Your task to perform on an android device: Go to Yahoo.com Image 0: 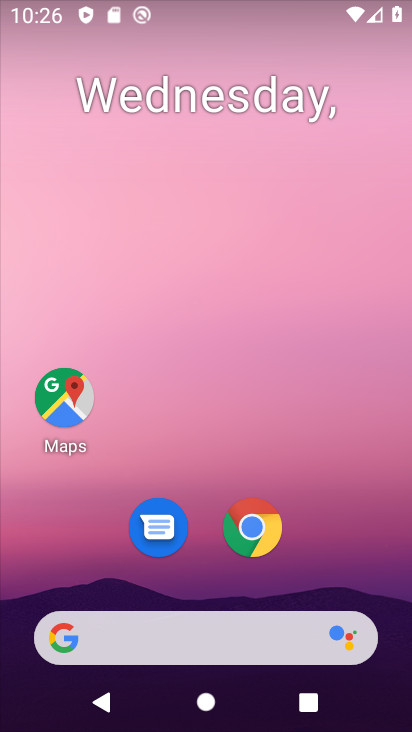
Step 0: click (258, 529)
Your task to perform on an android device: Go to Yahoo.com Image 1: 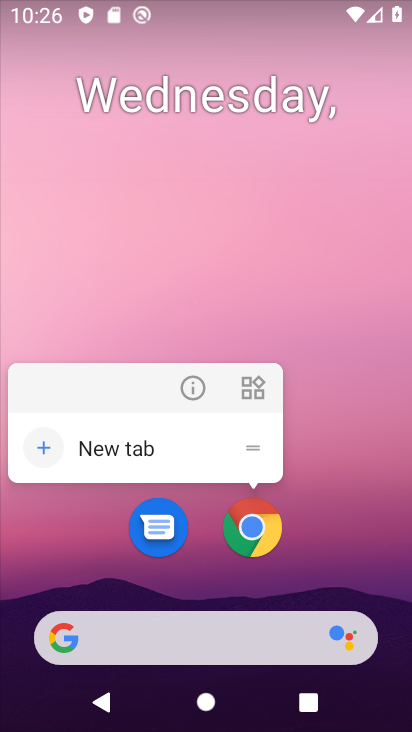
Step 1: click (258, 529)
Your task to perform on an android device: Go to Yahoo.com Image 2: 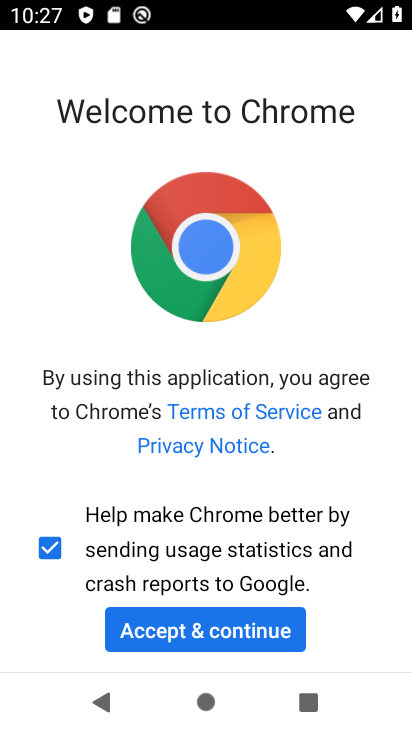
Step 2: click (174, 636)
Your task to perform on an android device: Go to Yahoo.com Image 3: 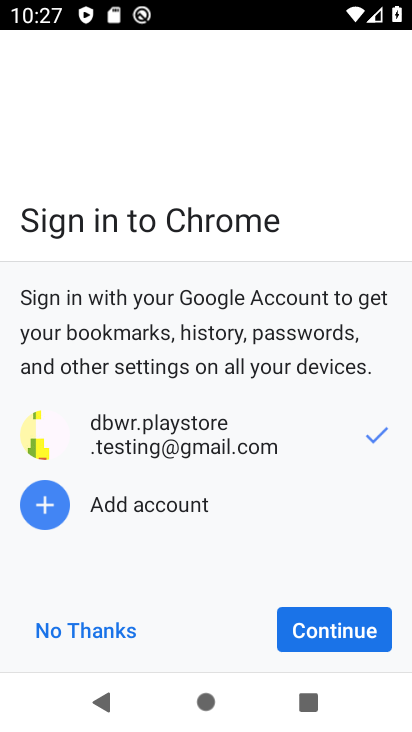
Step 3: click (109, 641)
Your task to perform on an android device: Go to Yahoo.com Image 4: 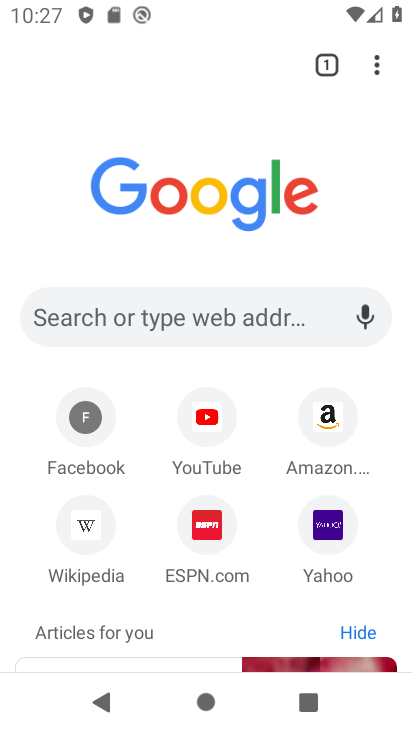
Step 4: click (328, 521)
Your task to perform on an android device: Go to Yahoo.com Image 5: 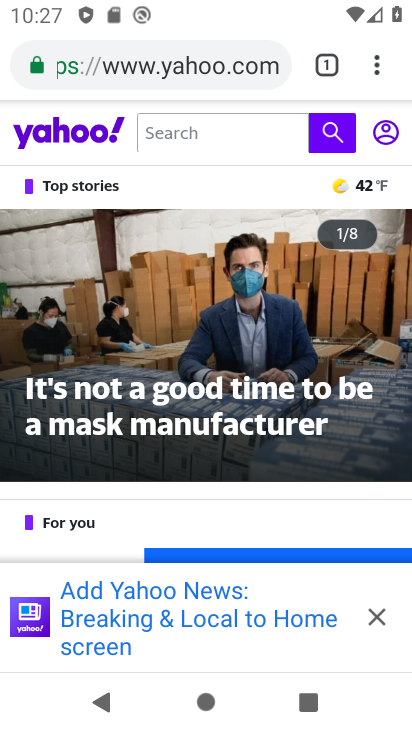
Step 5: task complete